Your task to perform on an android device: choose inbox layout in the gmail app Image 0: 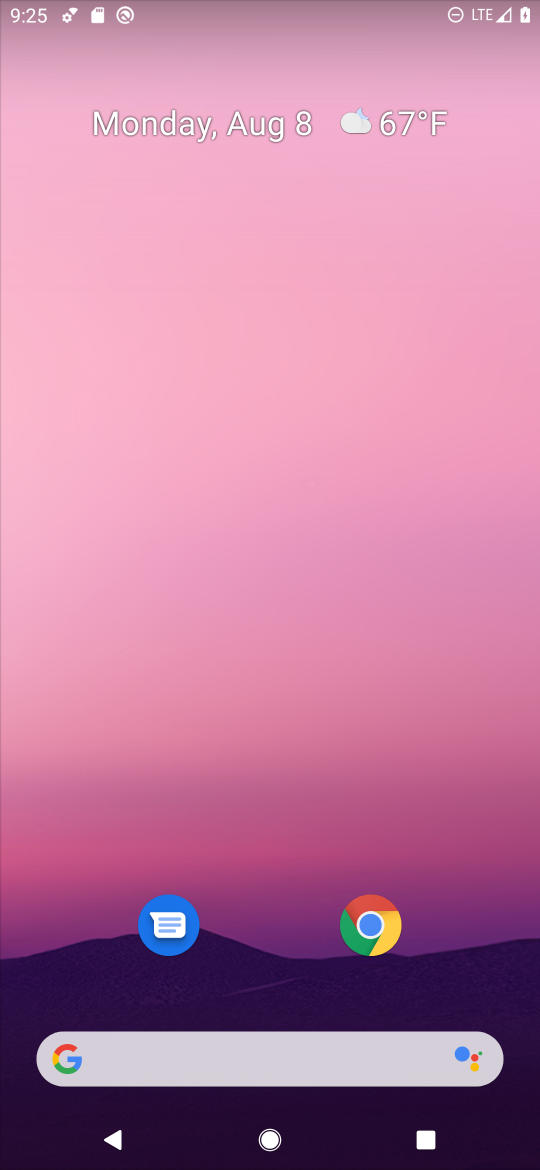
Step 0: drag from (390, 729) to (417, 122)
Your task to perform on an android device: choose inbox layout in the gmail app Image 1: 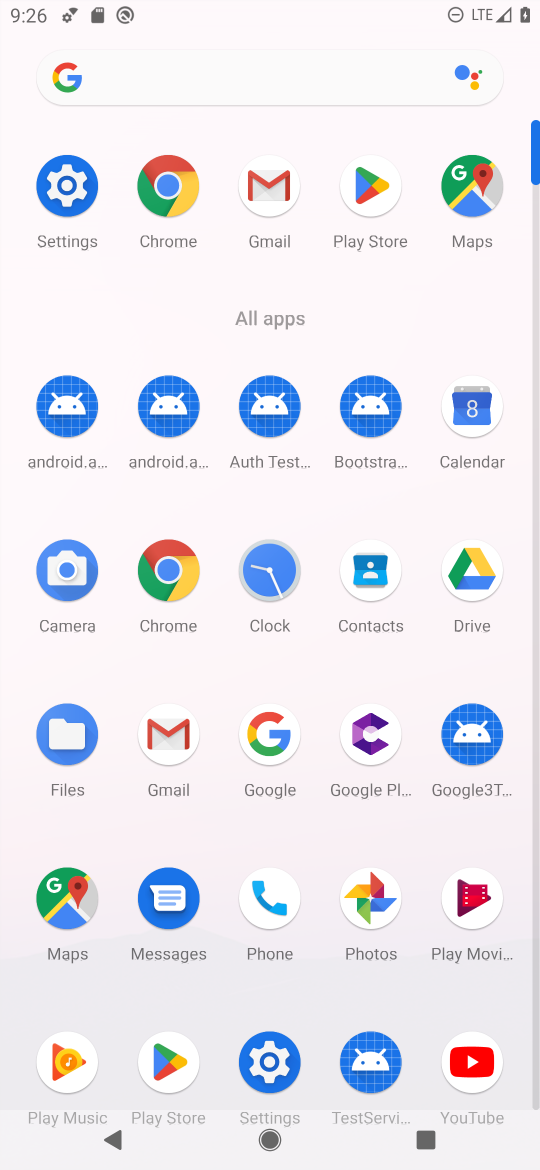
Step 1: click (170, 727)
Your task to perform on an android device: choose inbox layout in the gmail app Image 2: 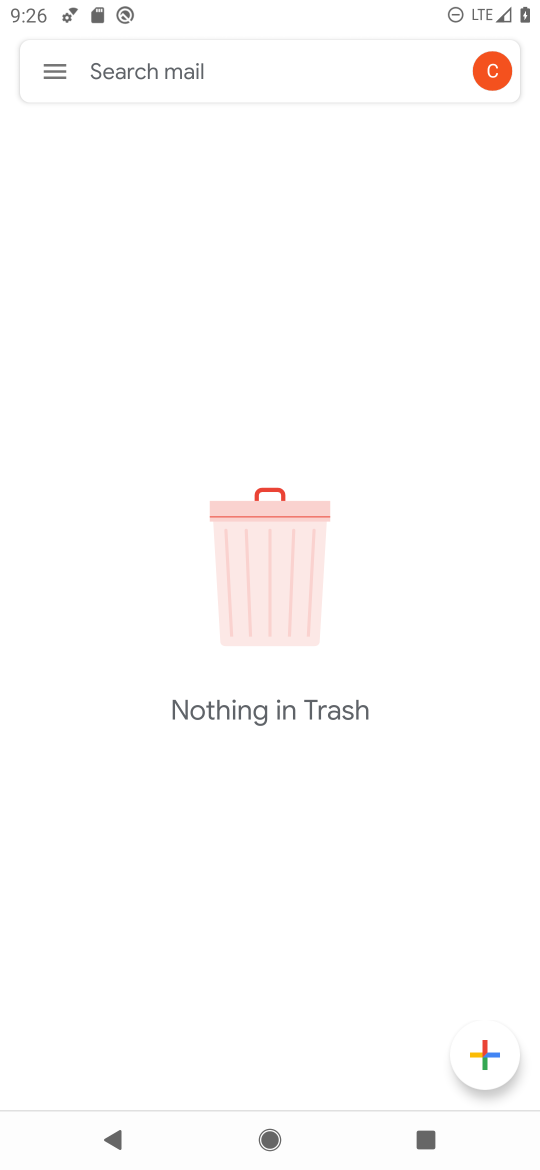
Step 2: click (51, 68)
Your task to perform on an android device: choose inbox layout in the gmail app Image 3: 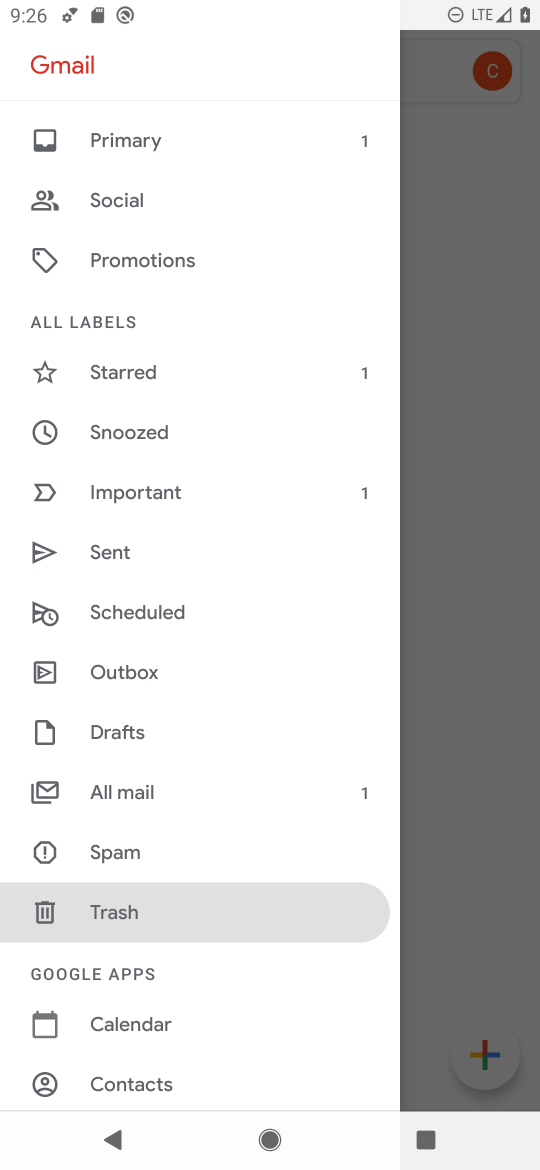
Step 3: drag from (216, 977) to (286, 296)
Your task to perform on an android device: choose inbox layout in the gmail app Image 4: 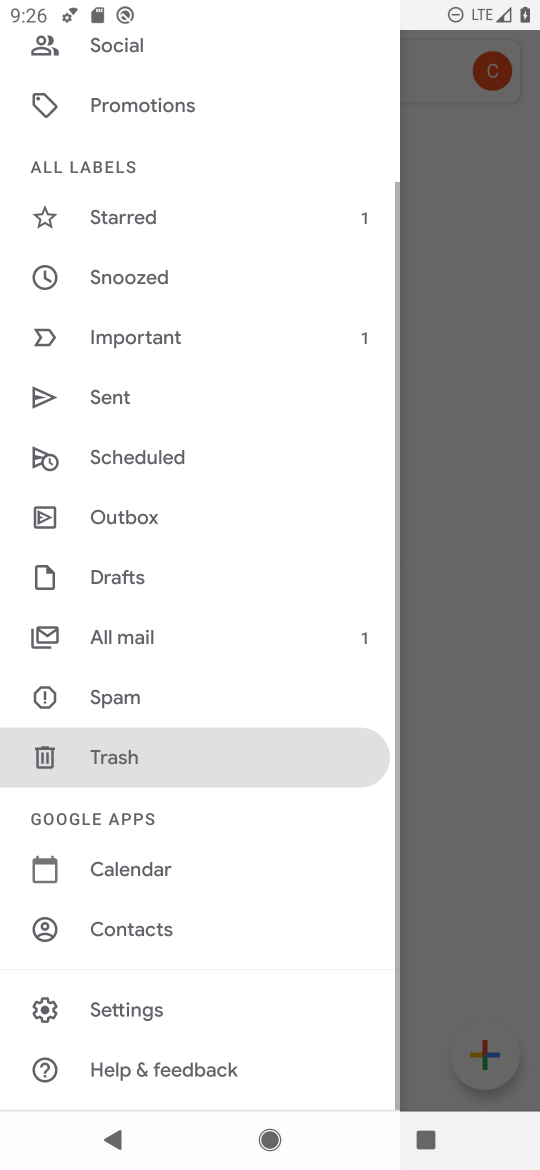
Step 4: click (150, 1017)
Your task to perform on an android device: choose inbox layout in the gmail app Image 5: 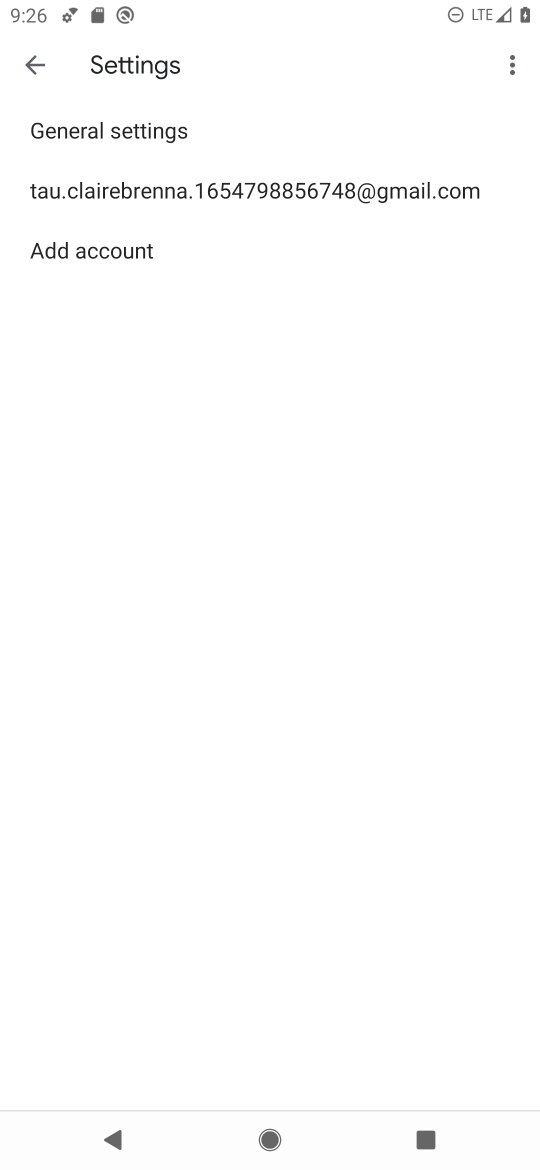
Step 5: click (237, 186)
Your task to perform on an android device: choose inbox layout in the gmail app Image 6: 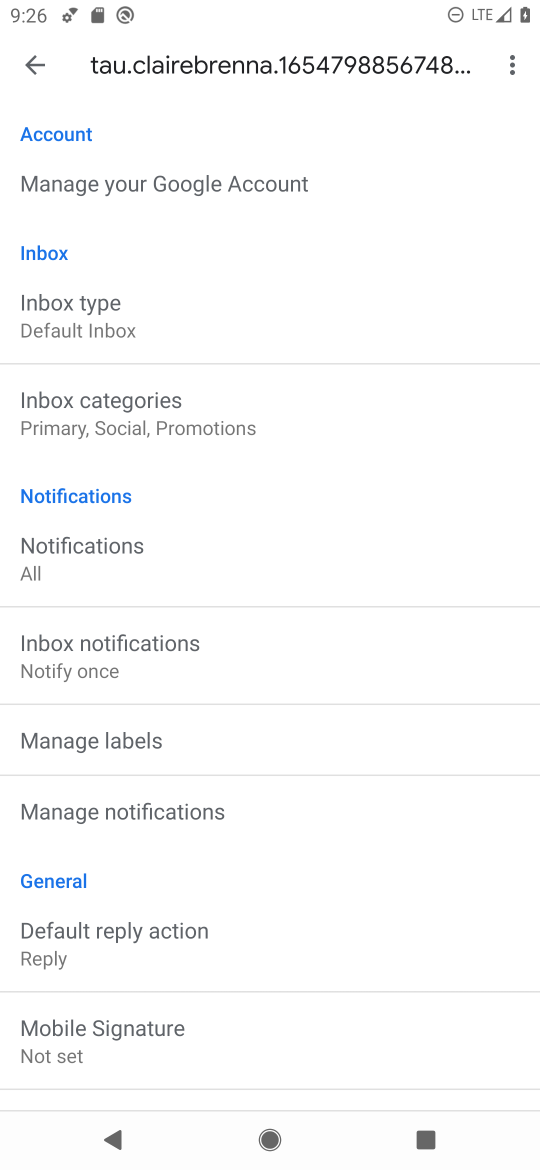
Step 6: click (71, 309)
Your task to perform on an android device: choose inbox layout in the gmail app Image 7: 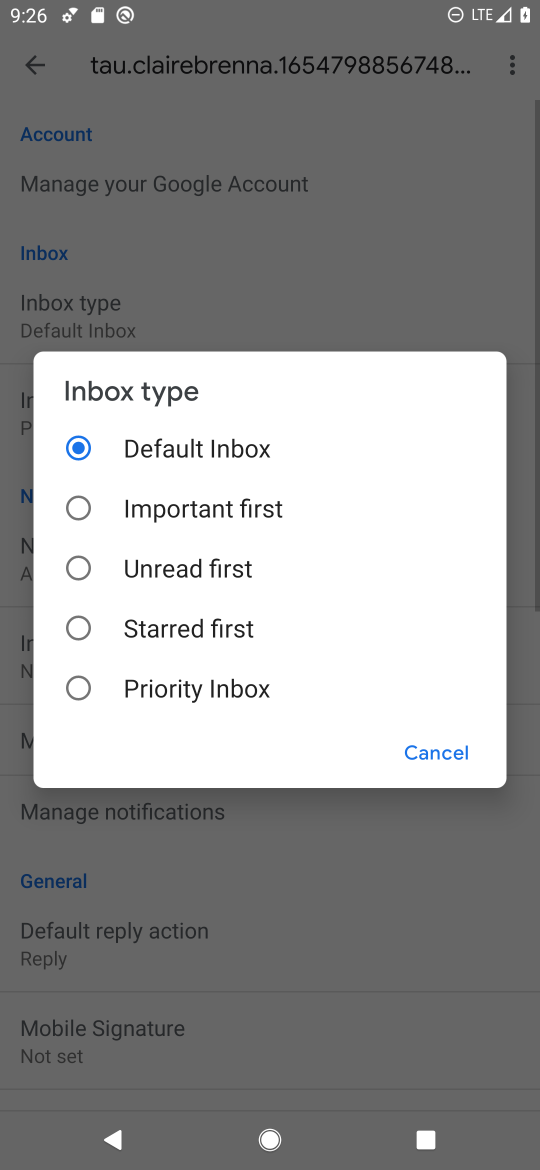
Step 7: task complete